Your task to perform on an android device: Go to display settings Image 0: 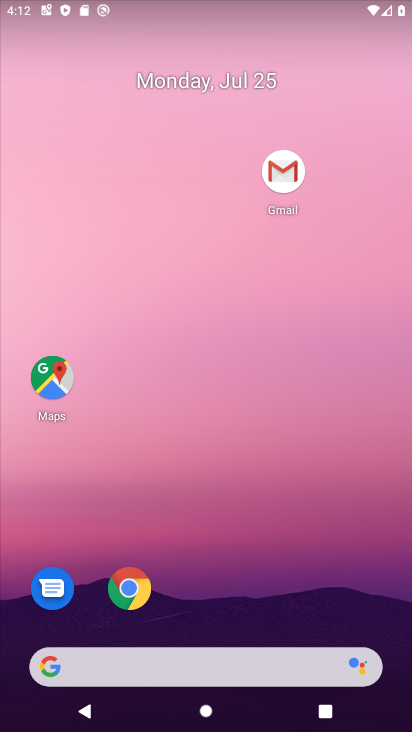
Step 0: drag from (351, 559) to (289, 9)
Your task to perform on an android device: Go to display settings Image 1: 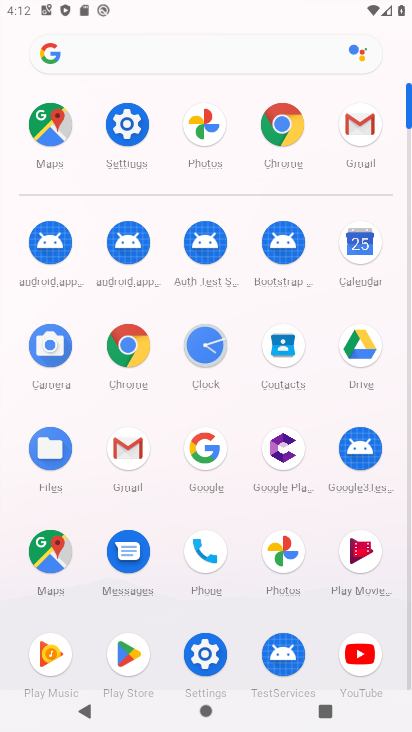
Step 1: click (137, 124)
Your task to perform on an android device: Go to display settings Image 2: 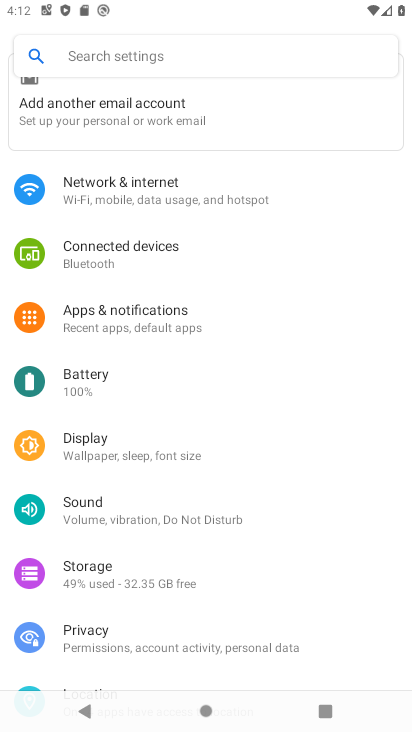
Step 2: click (122, 439)
Your task to perform on an android device: Go to display settings Image 3: 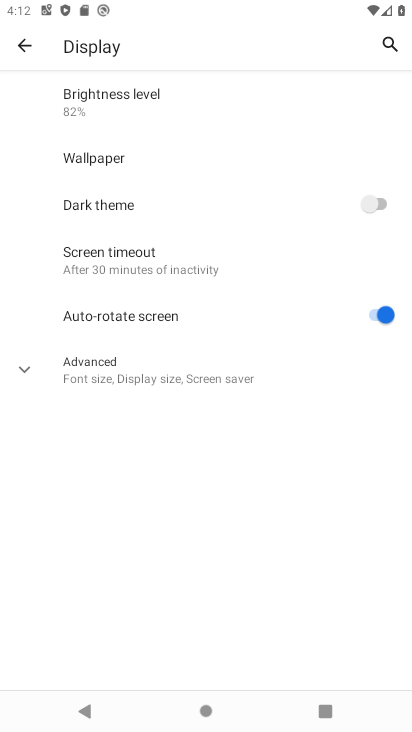
Step 3: task complete